Your task to perform on an android device: open app "YouTube Kids" (install if not already installed), go to login, and select forgot password Image 0: 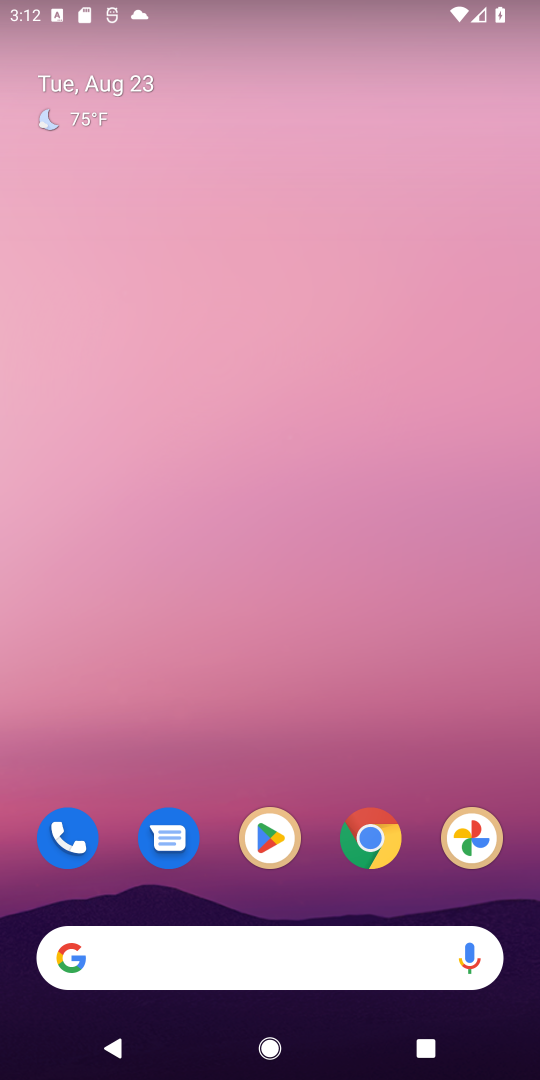
Step 0: click (273, 849)
Your task to perform on an android device: open app "YouTube Kids" (install if not already installed), go to login, and select forgot password Image 1: 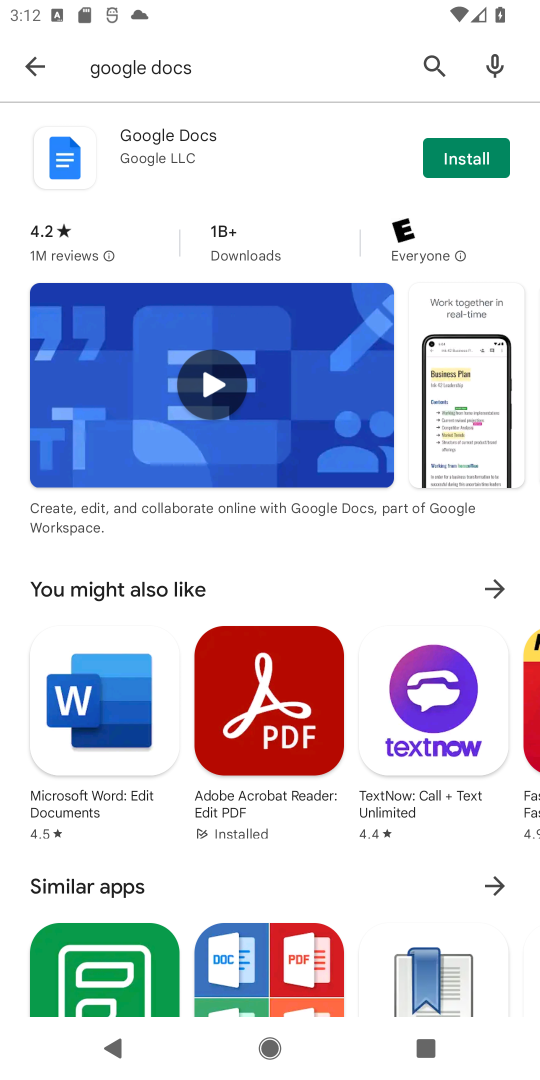
Step 1: click (18, 70)
Your task to perform on an android device: open app "YouTube Kids" (install if not already installed), go to login, and select forgot password Image 2: 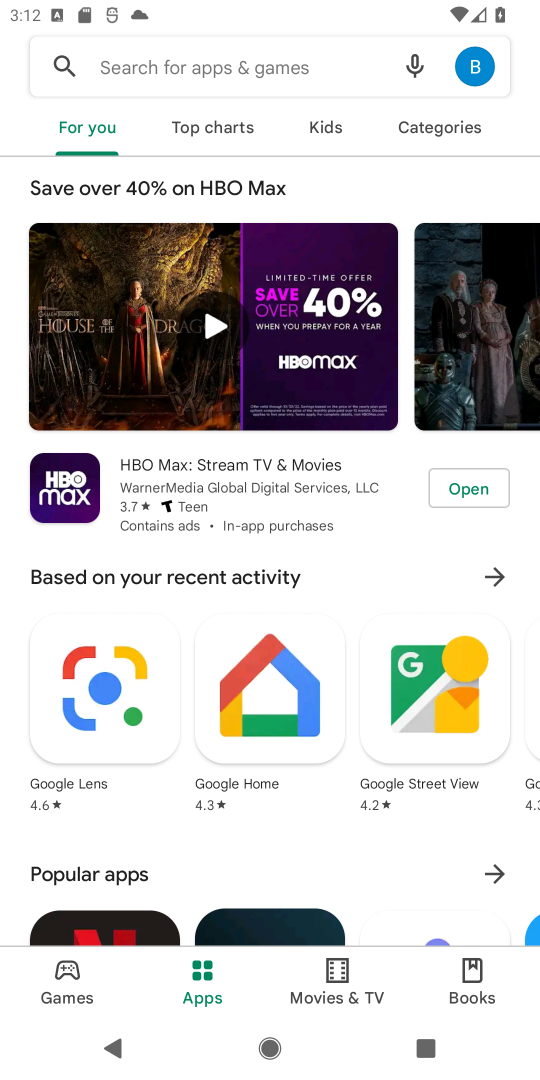
Step 2: click (175, 62)
Your task to perform on an android device: open app "YouTube Kids" (install if not already installed), go to login, and select forgot password Image 3: 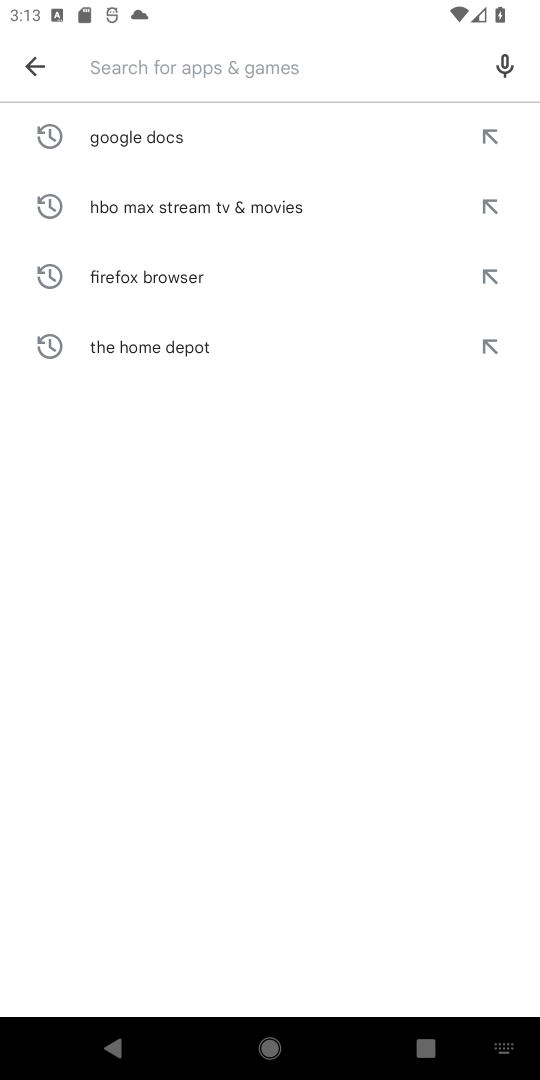
Step 3: type "YouTube Kids"
Your task to perform on an android device: open app "YouTube Kids" (install if not already installed), go to login, and select forgot password Image 4: 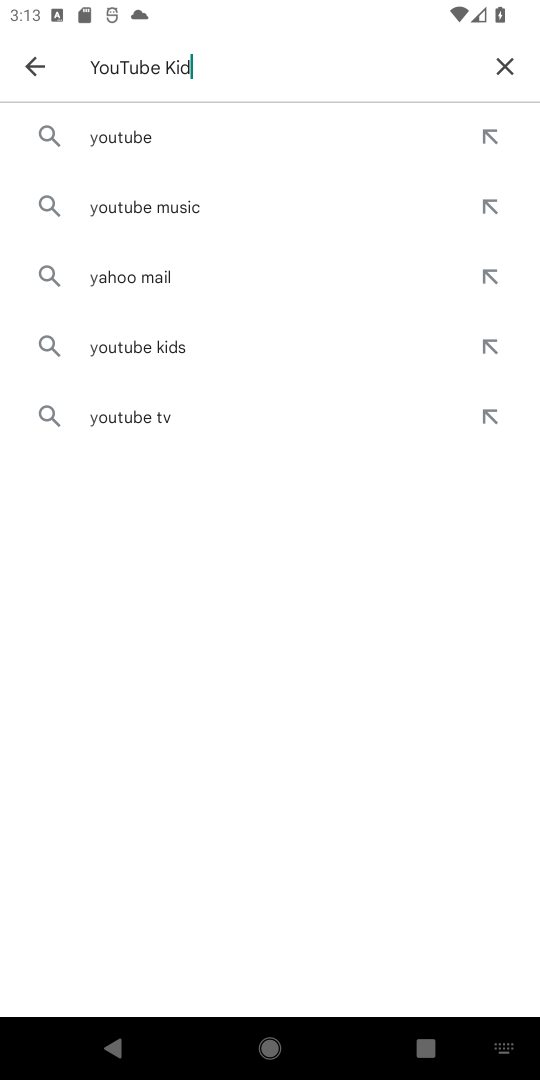
Step 4: type ""
Your task to perform on an android device: open app "YouTube Kids" (install if not already installed), go to login, and select forgot password Image 5: 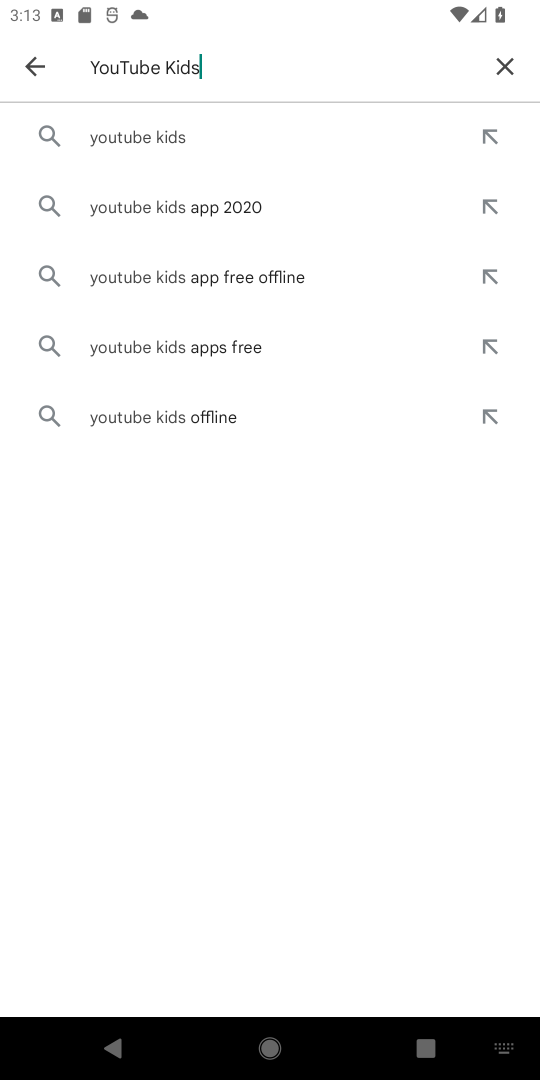
Step 5: click (163, 137)
Your task to perform on an android device: open app "YouTube Kids" (install if not already installed), go to login, and select forgot password Image 6: 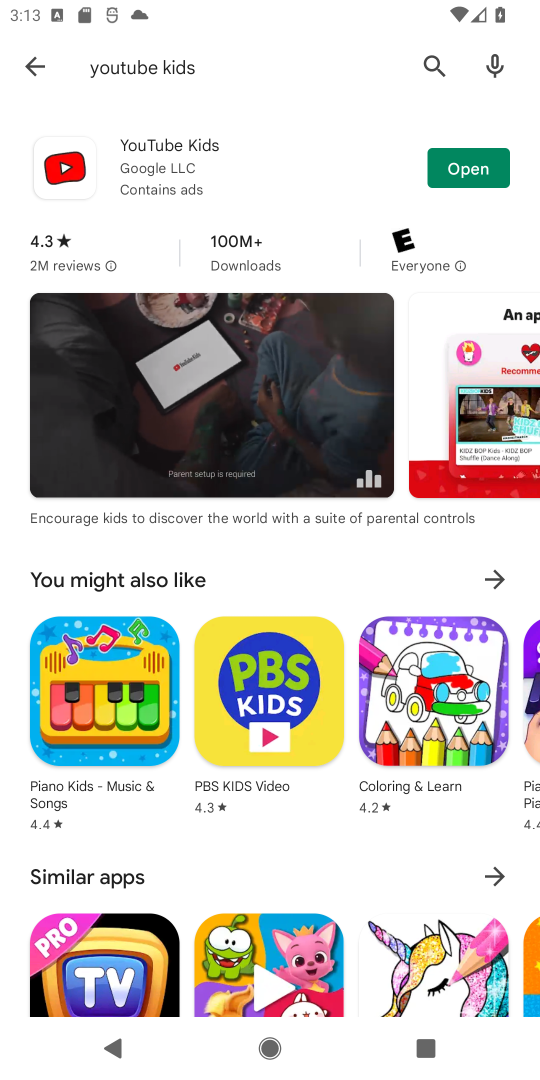
Step 6: click (456, 162)
Your task to perform on an android device: open app "YouTube Kids" (install if not already installed), go to login, and select forgot password Image 7: 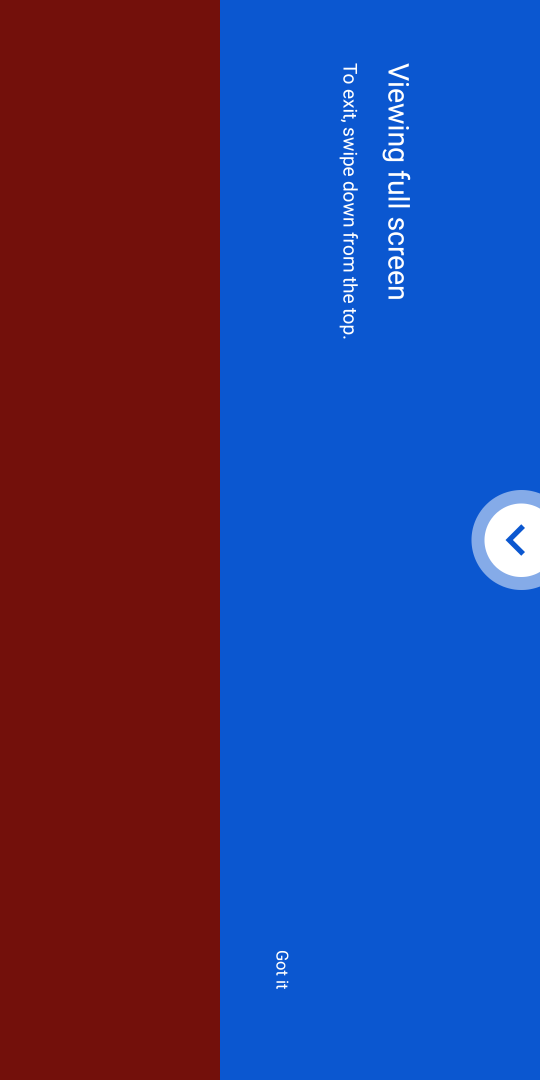
Step 7: click (281, 956)
Your task to perform on an android device: open app "YouTube Kids" (install if not already installed), go to login, and select forgot password Image 8: 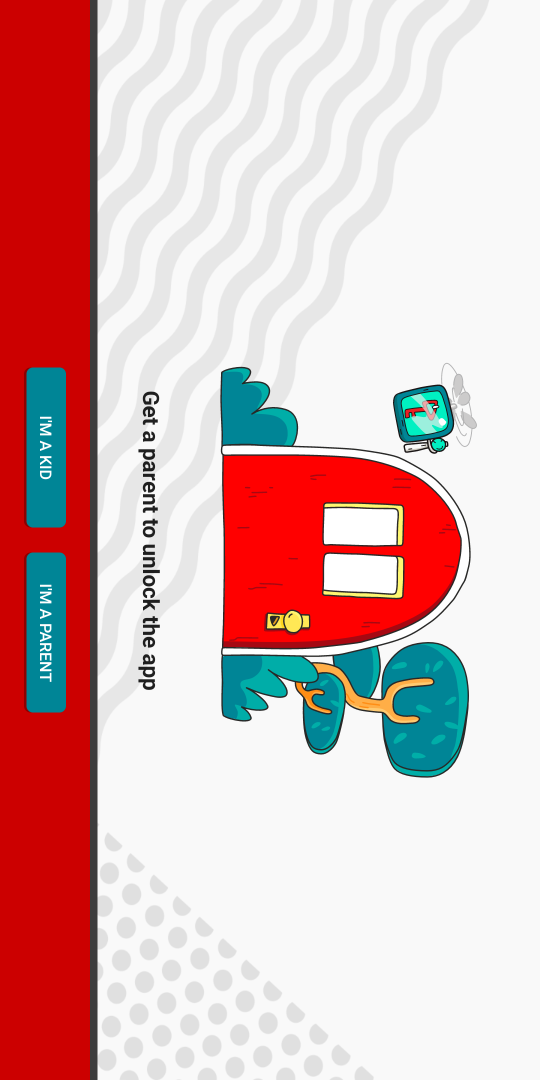
Step 8: click (48, 489)
Your task to perform on an android device: open app "YouTube Kids" (install if not already installed), go to login, and select forgot password Image 9: 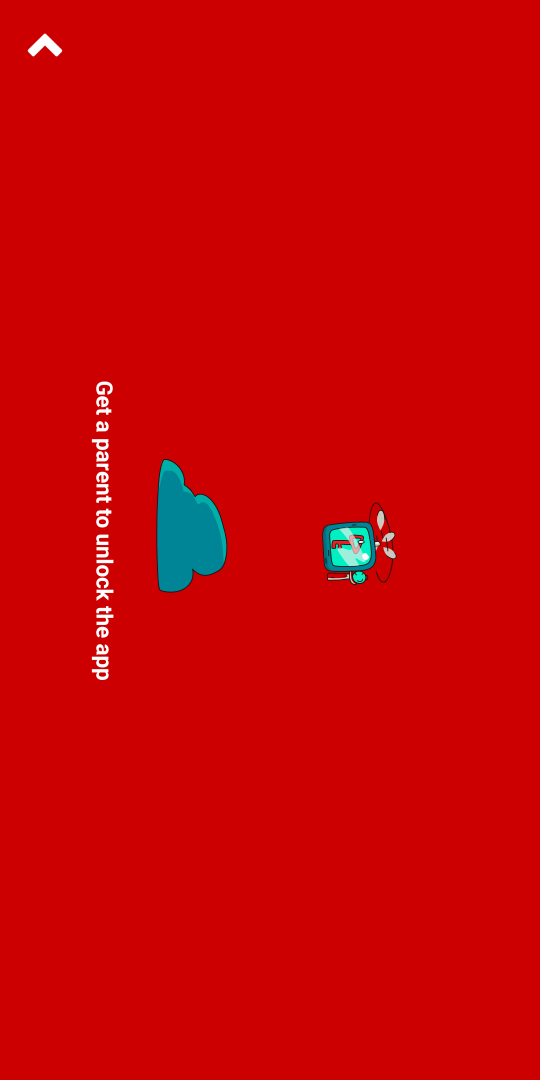
Step 9: click (51, 58)
Your task to perform on an android device: open app "YouTube Kids" (install if not already installed), go to login, and select forgot password Image 10: 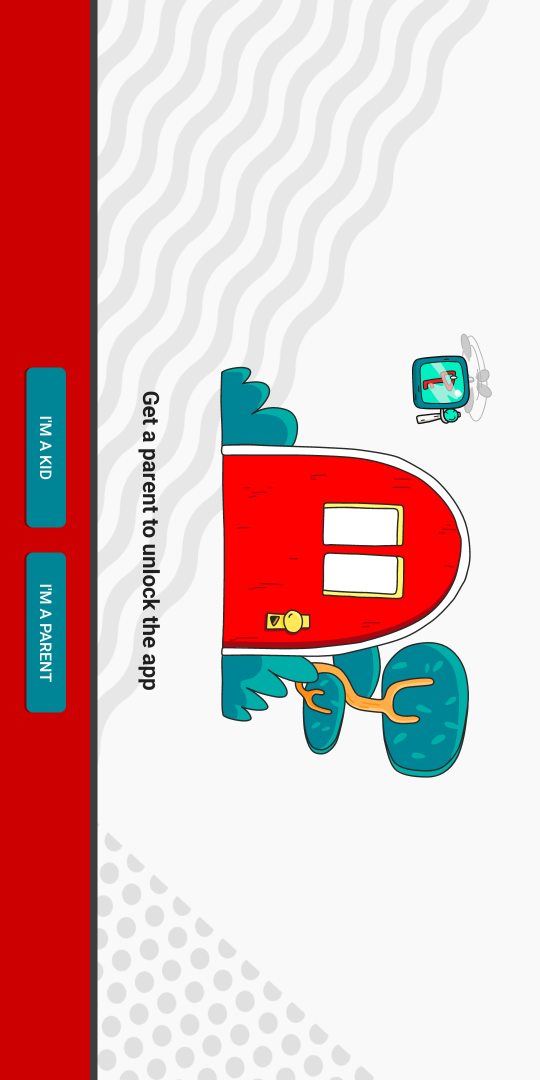
Step 10: click (50, 672)
Your task to perform on an android device: open app "YouTube Kids" (install if not already installed), go to login, and select forgot password Image 11: 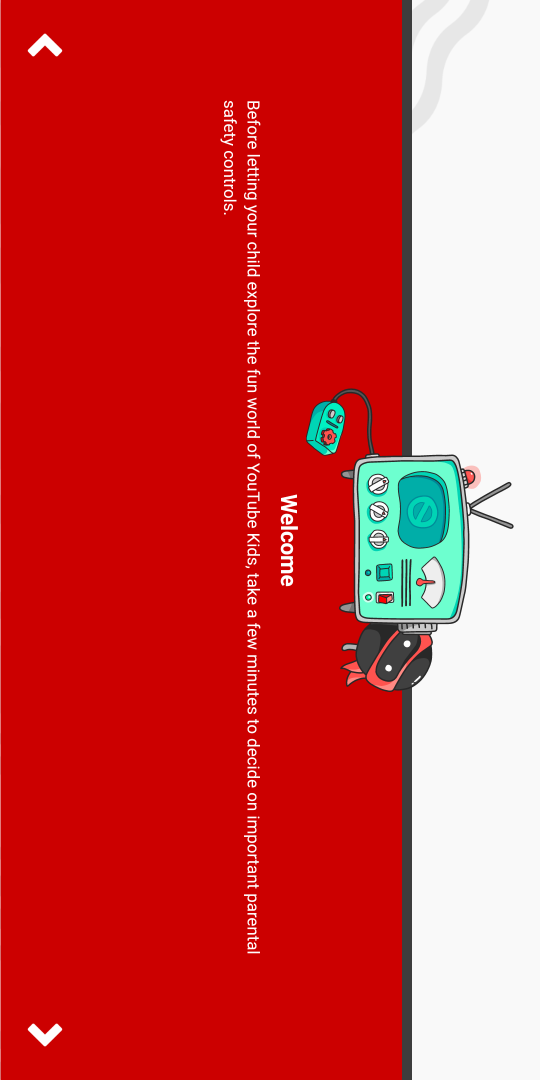
Step 11: click (45, 1048)
Your task to perform on an android device: open app "YouTube Kids" (install if not already installed), go to login, and select forgot password Image 12: 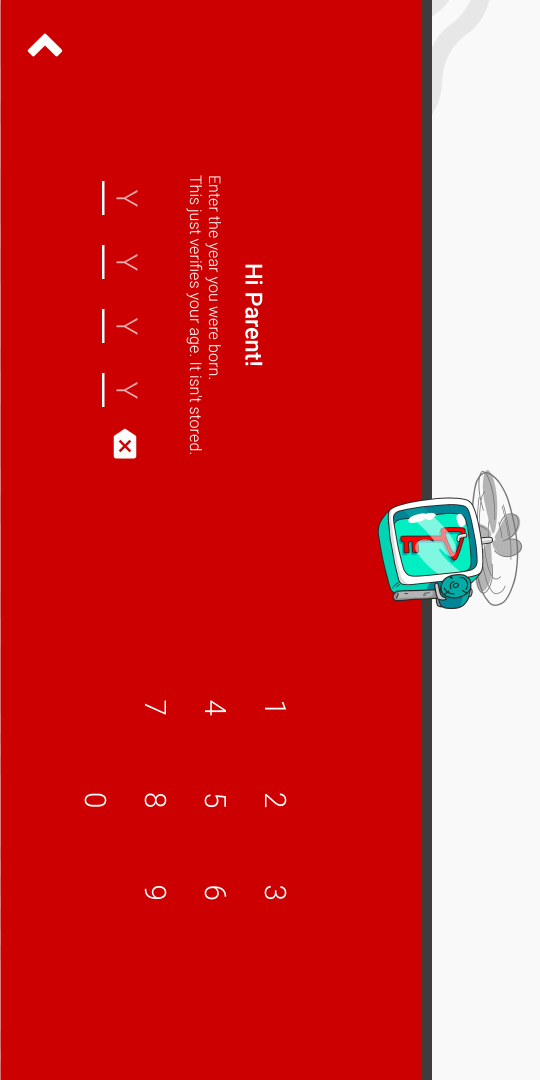
Step 12: task complete